Your task to perform on an android device: Go to CNN.com Image 0: 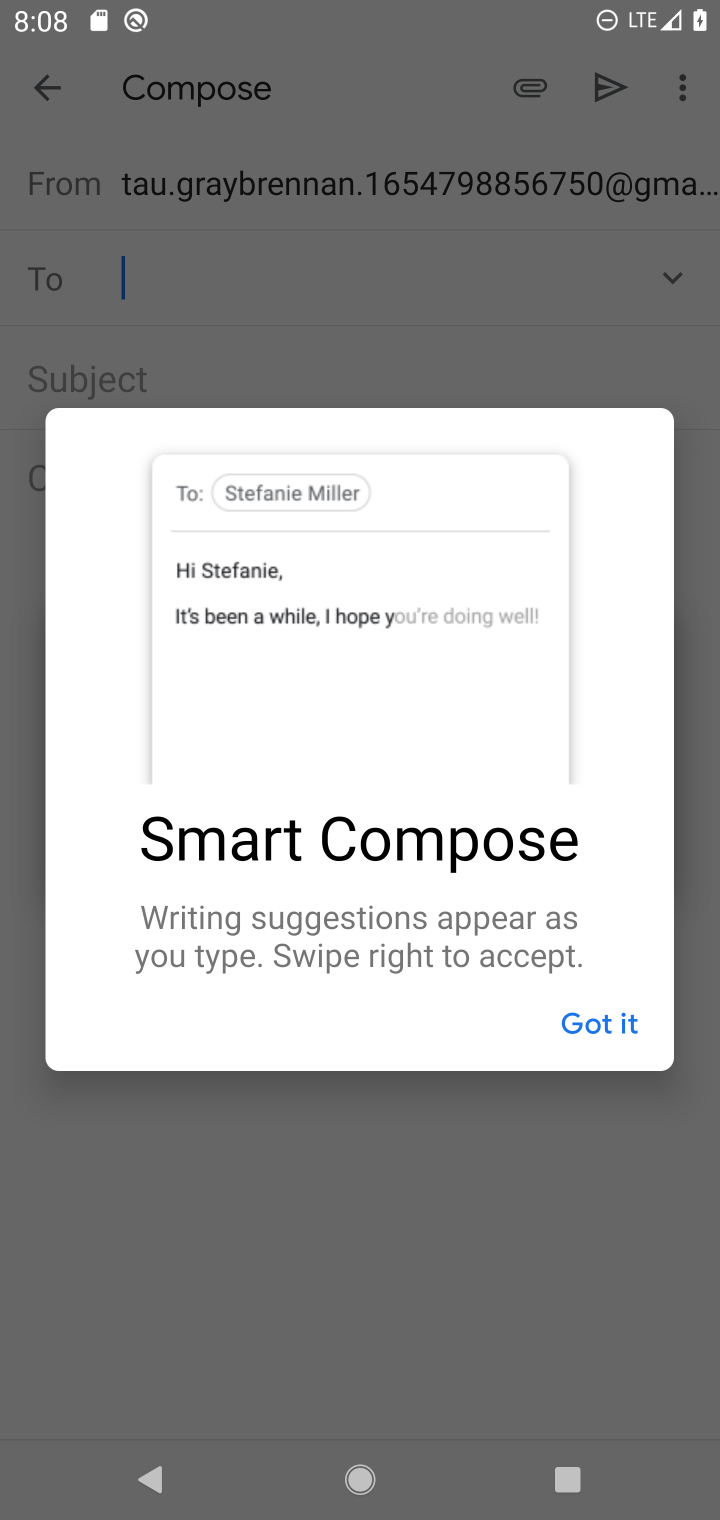
Step 0: press home button
Your task to perform on an android device: Go to CNN.com Image 1: 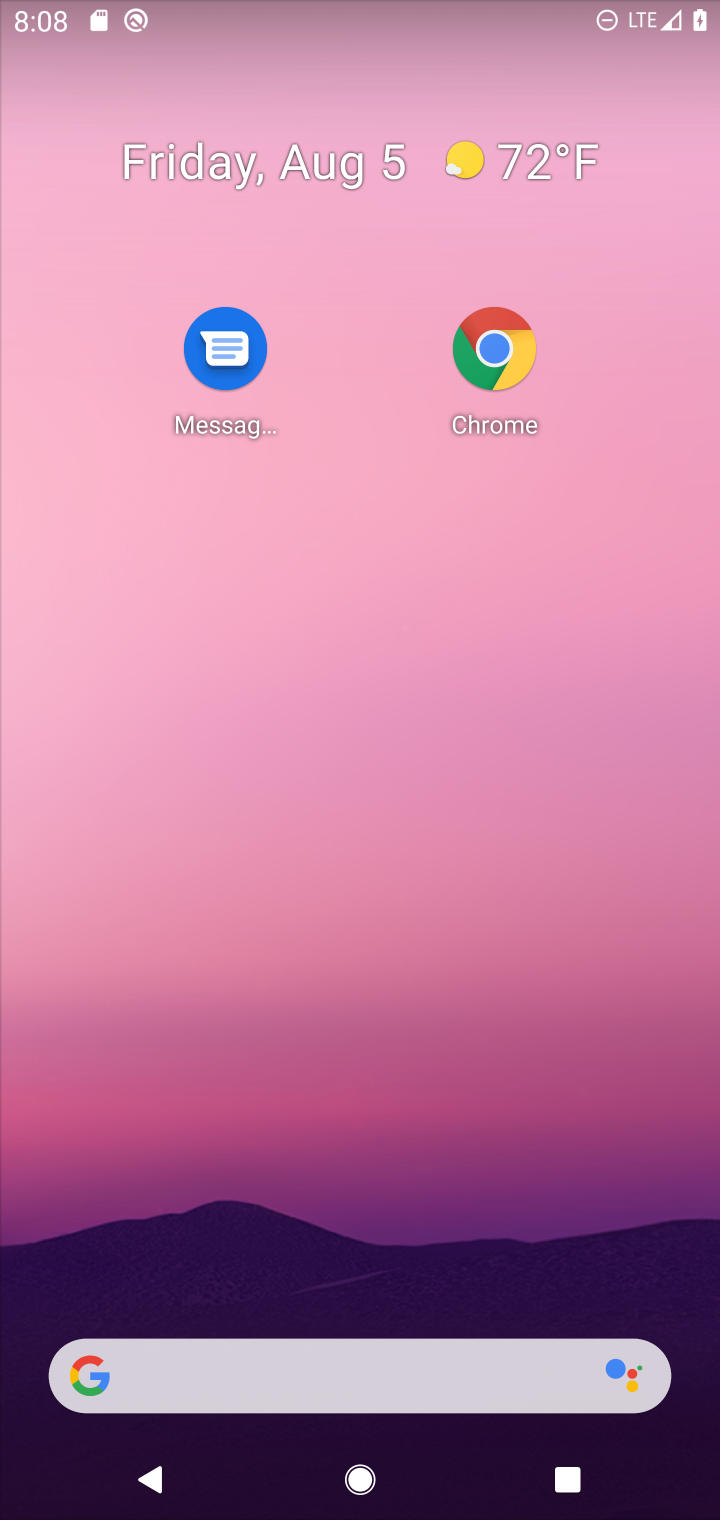
Step 1: drag from (436, 1285) to (345, 375)
Your task to perform on an android device: Go to CNN.com Image 2: 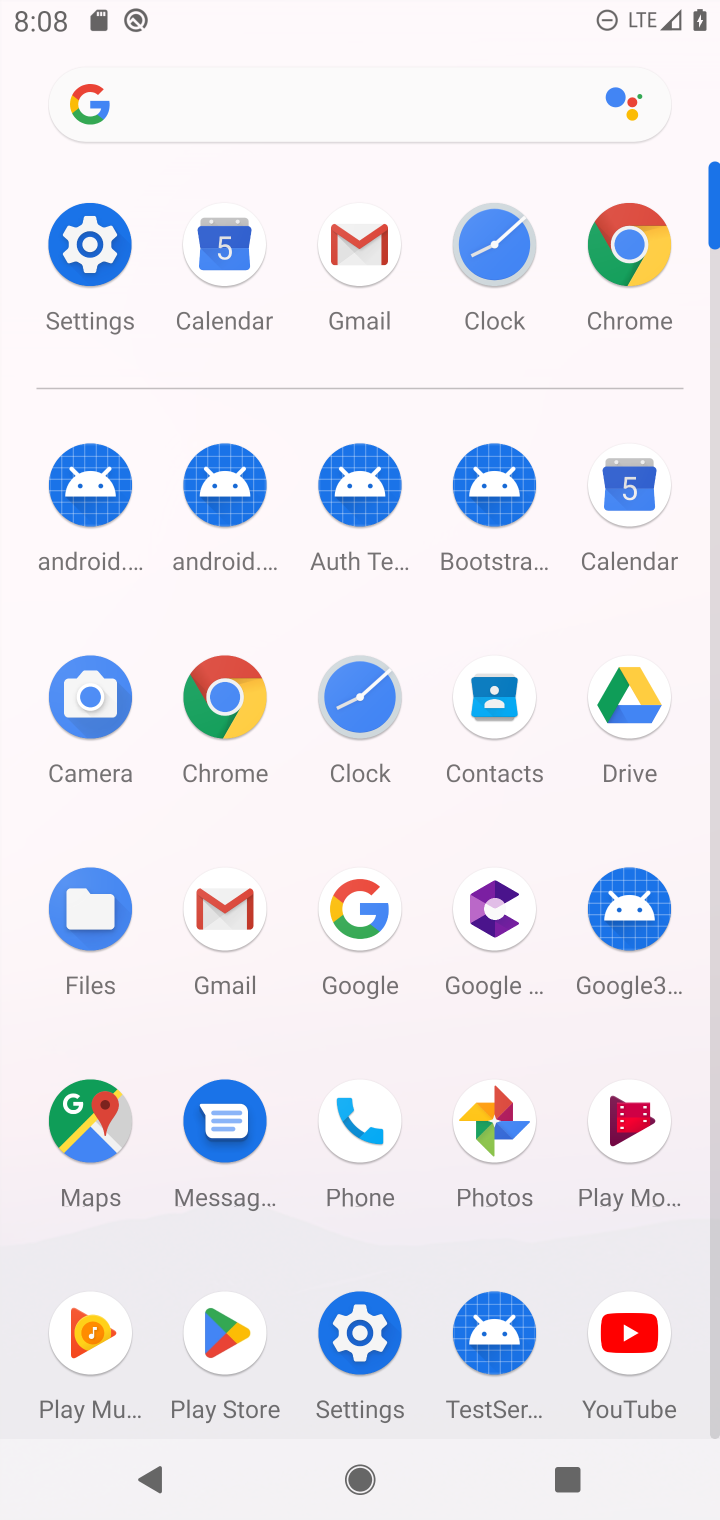
Step 2: click (612, 251)
Your task to perform on an android device: Go to CNN.com Image 3: 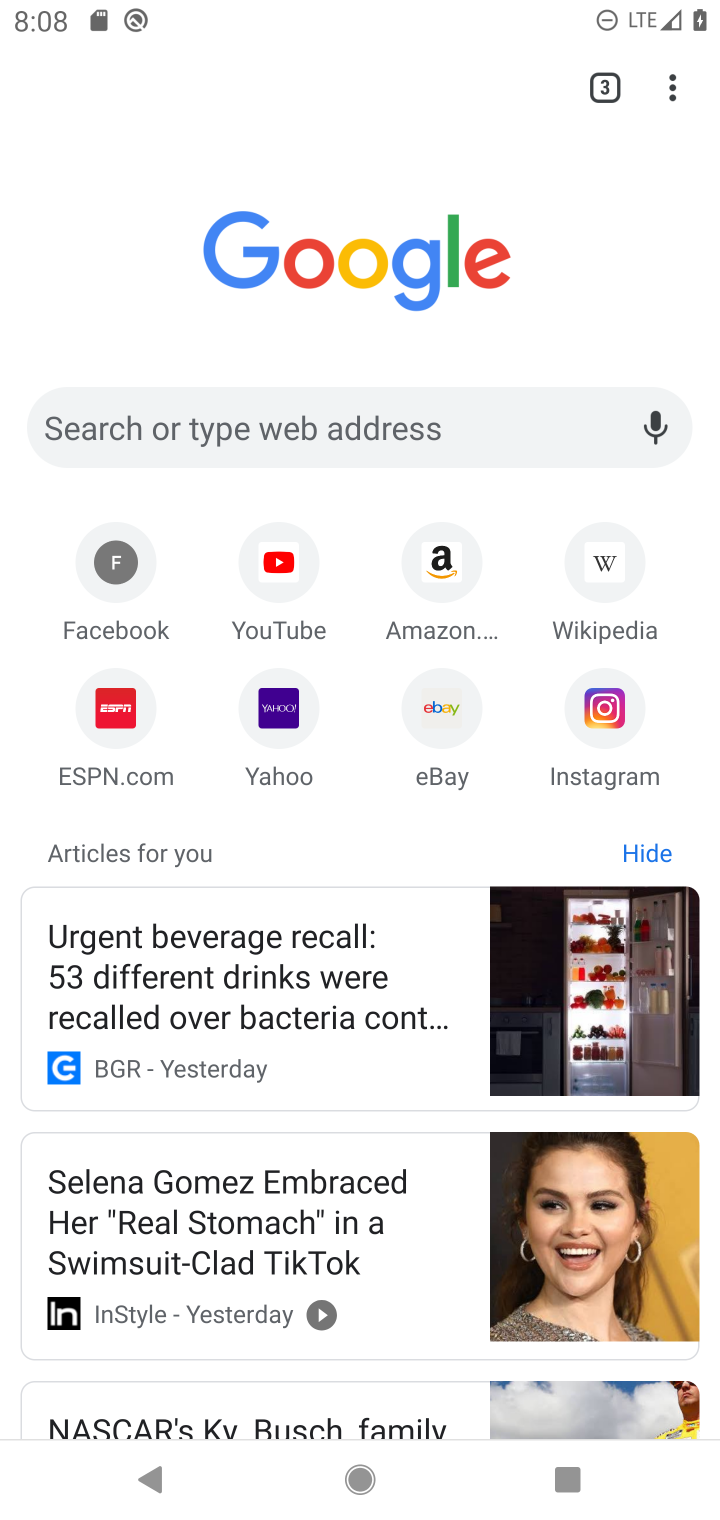
Step 3: click (288, 454)
Your task to perform on an android device: Go to CNN.com Image 4: 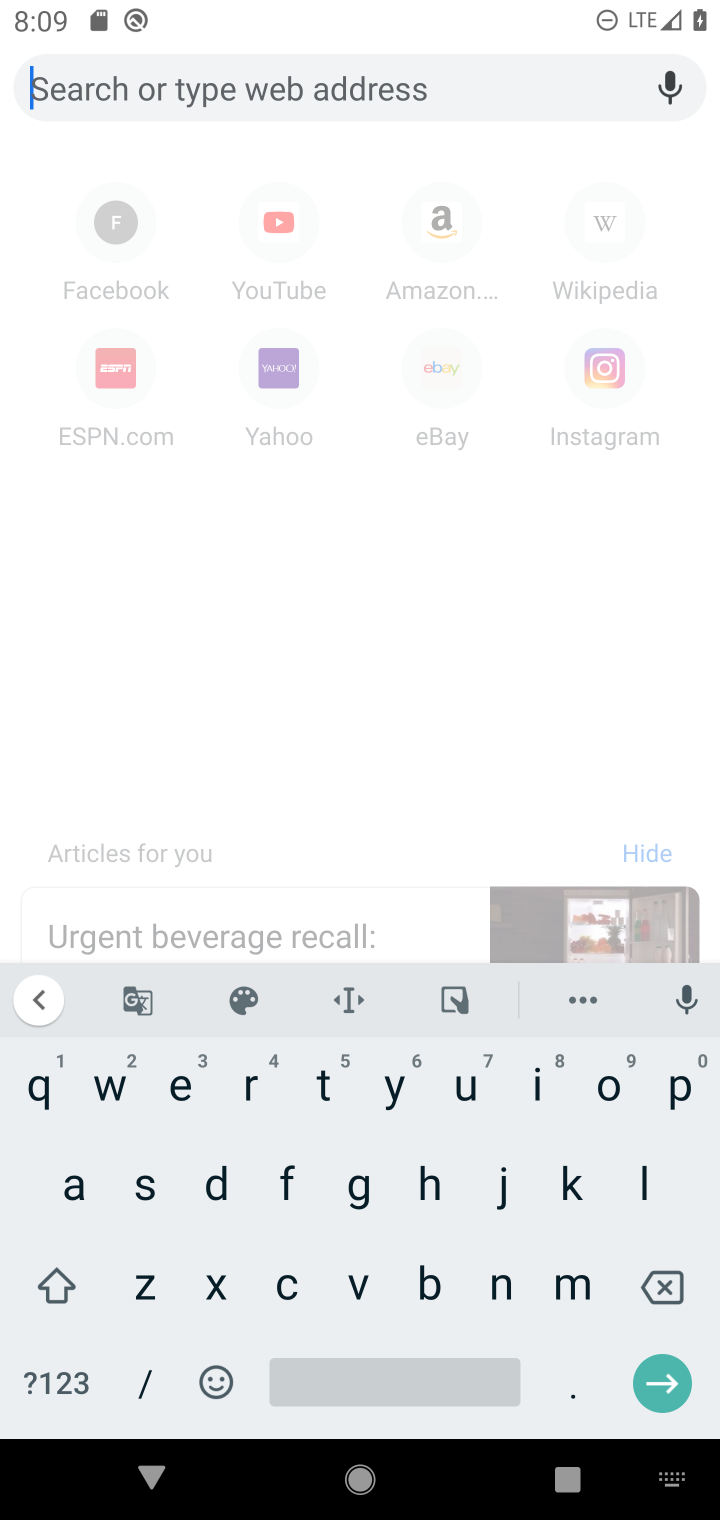
Step 4: click (282, 1267)
Your task to perform on an android device: Go to CNN.com Image 5: 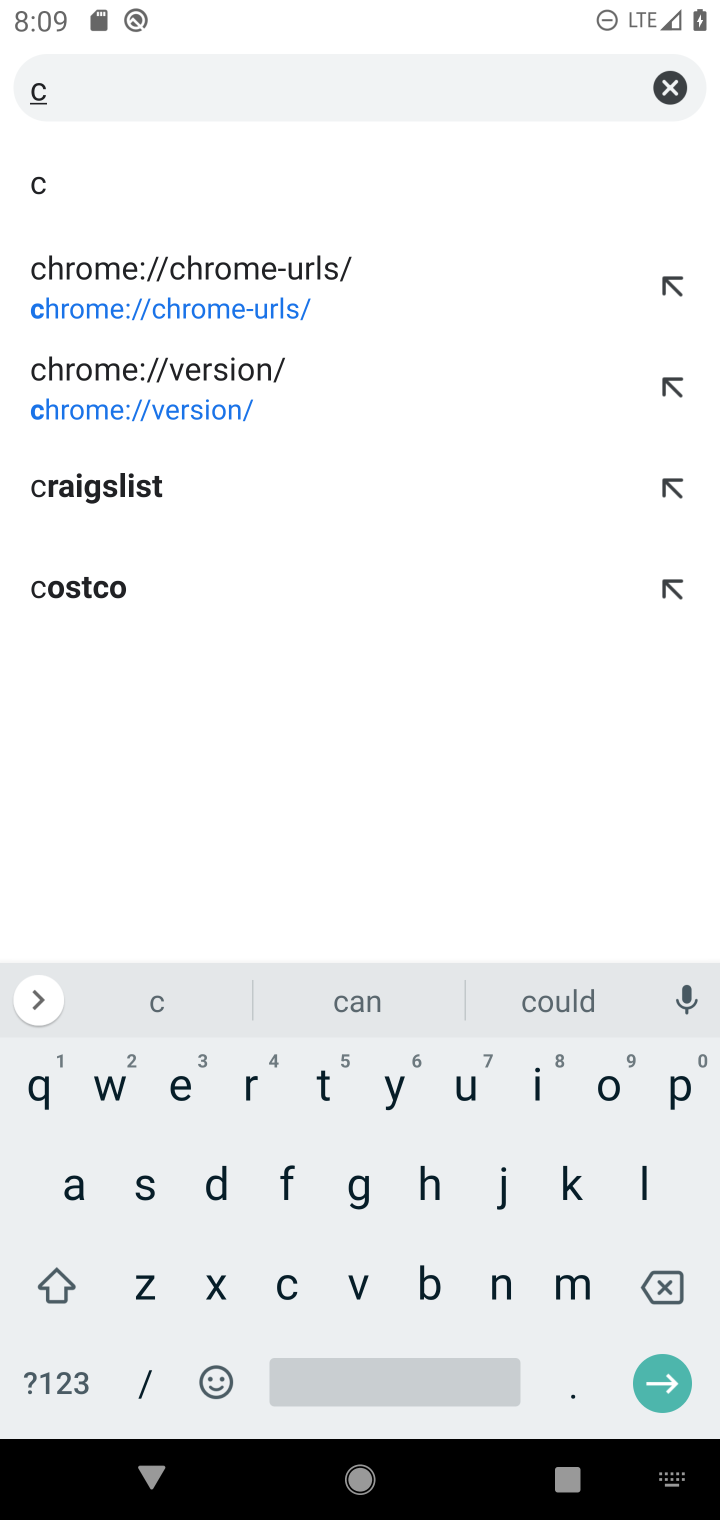
Step 5: click (485, 1289)
Your task to perform on an android device: Go to CNN.com Image 6: 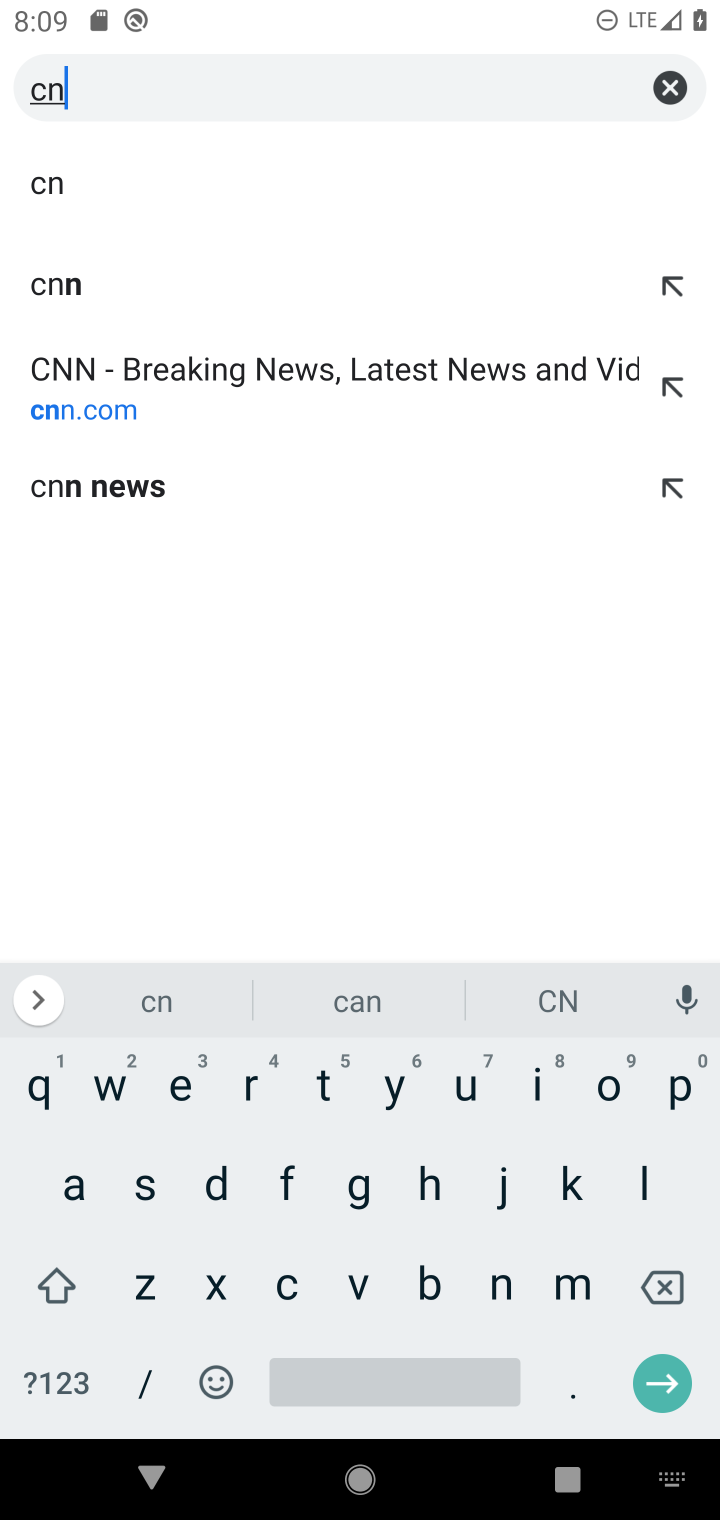
Step 6: click (485, 1289)
Your task to perform on an android device: Go to CNN.com Image 7: 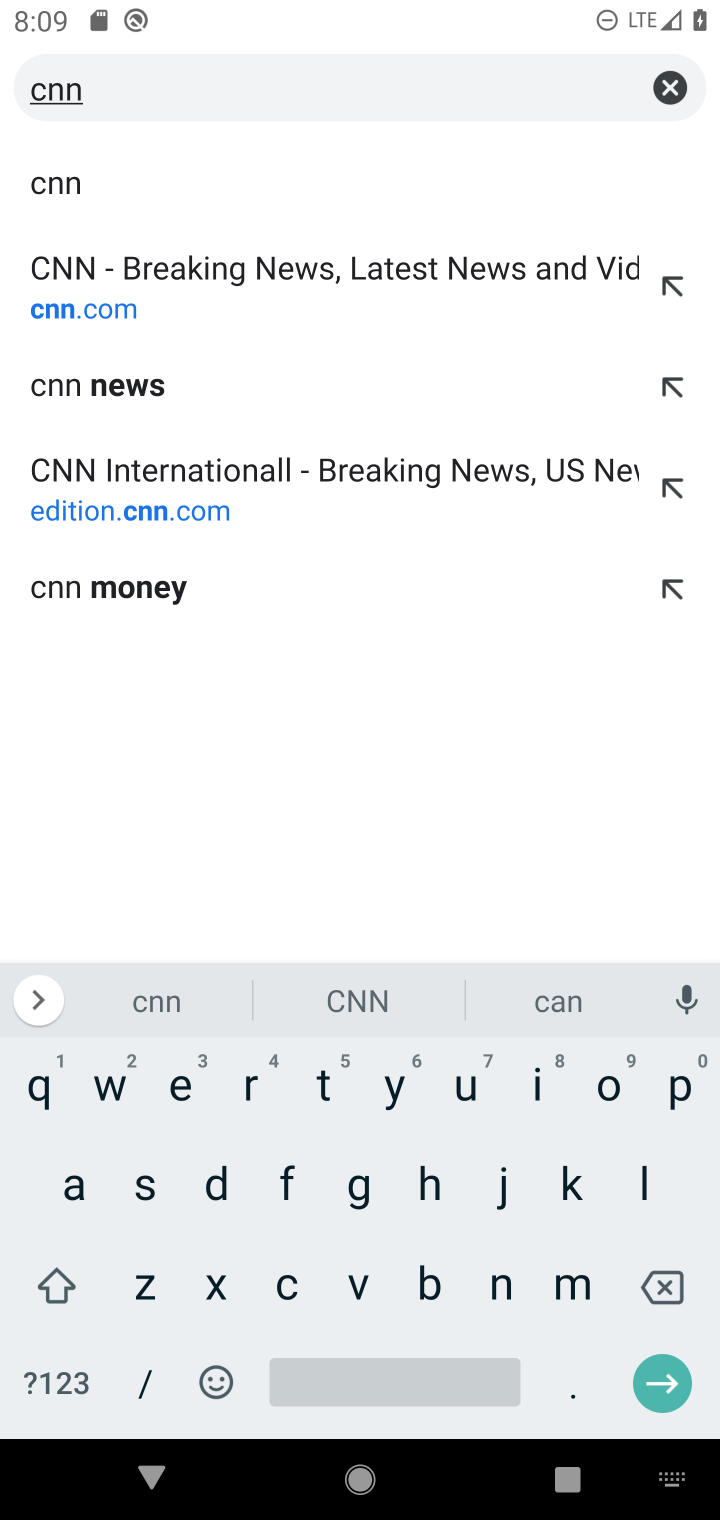
Step 7: click (125, 182)
Your task to perform on an android device: Go to CNN.com Image 8: 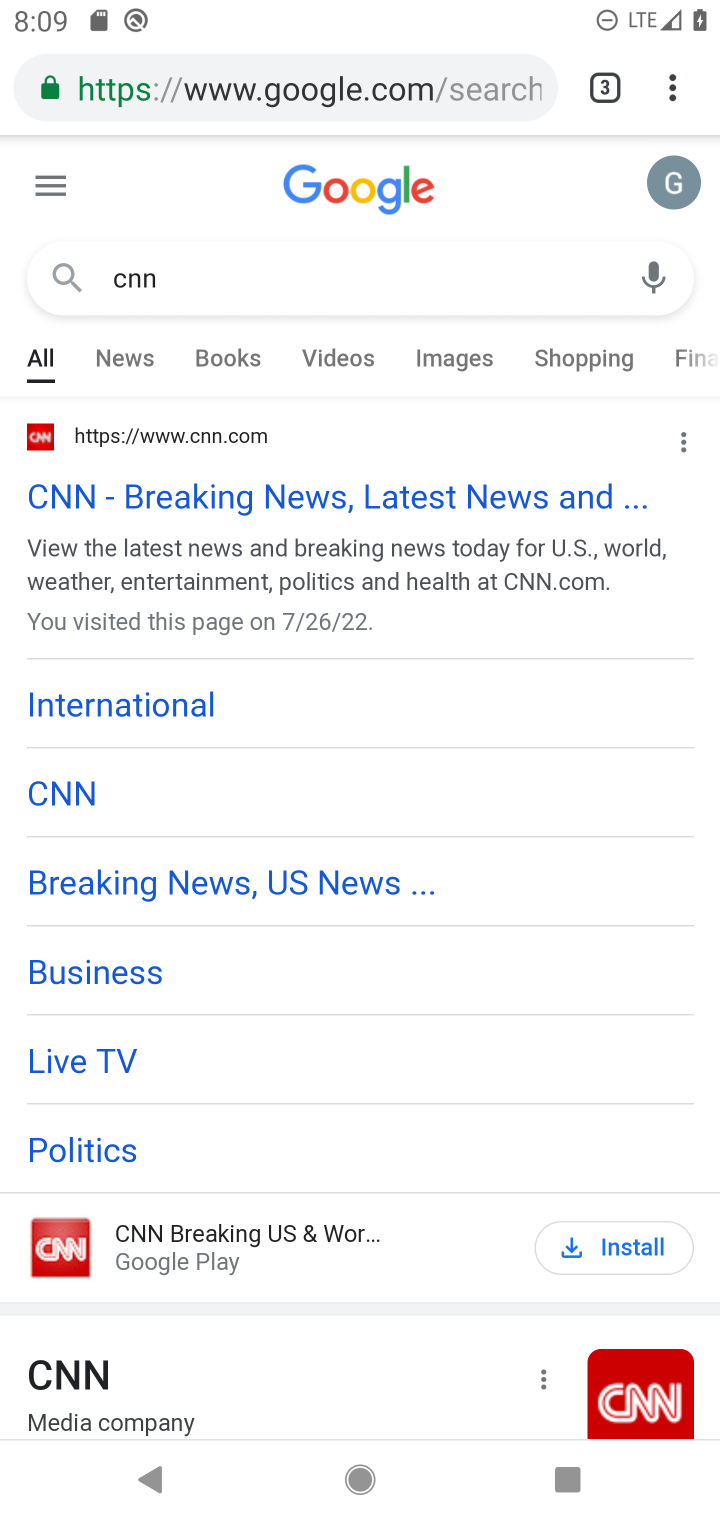
Step 8: click (127, 496)
Your task to perform on an android device: Go to CNN.com Image 9: 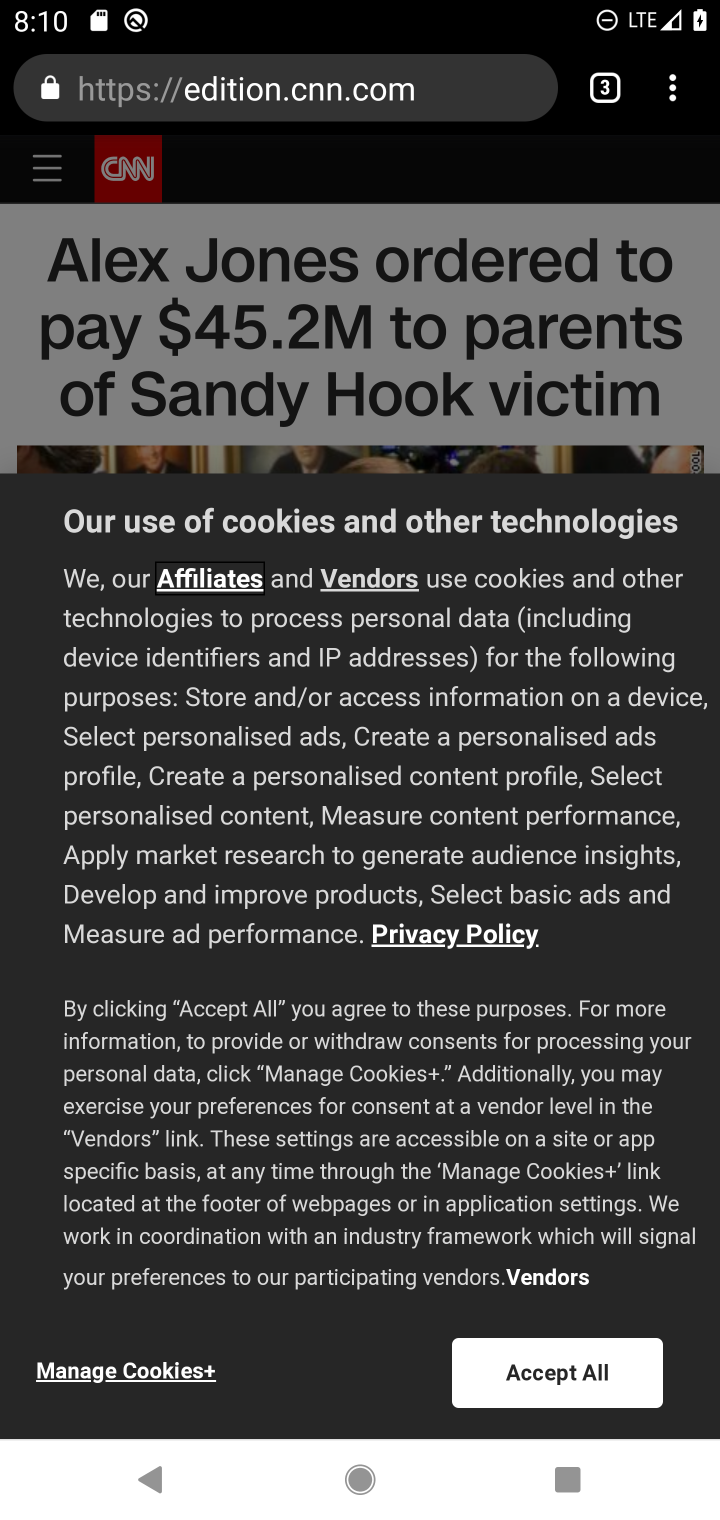
Step 9: click (619, 1363)
Your task to perform on an android device: Go to CNN.com Image 10: 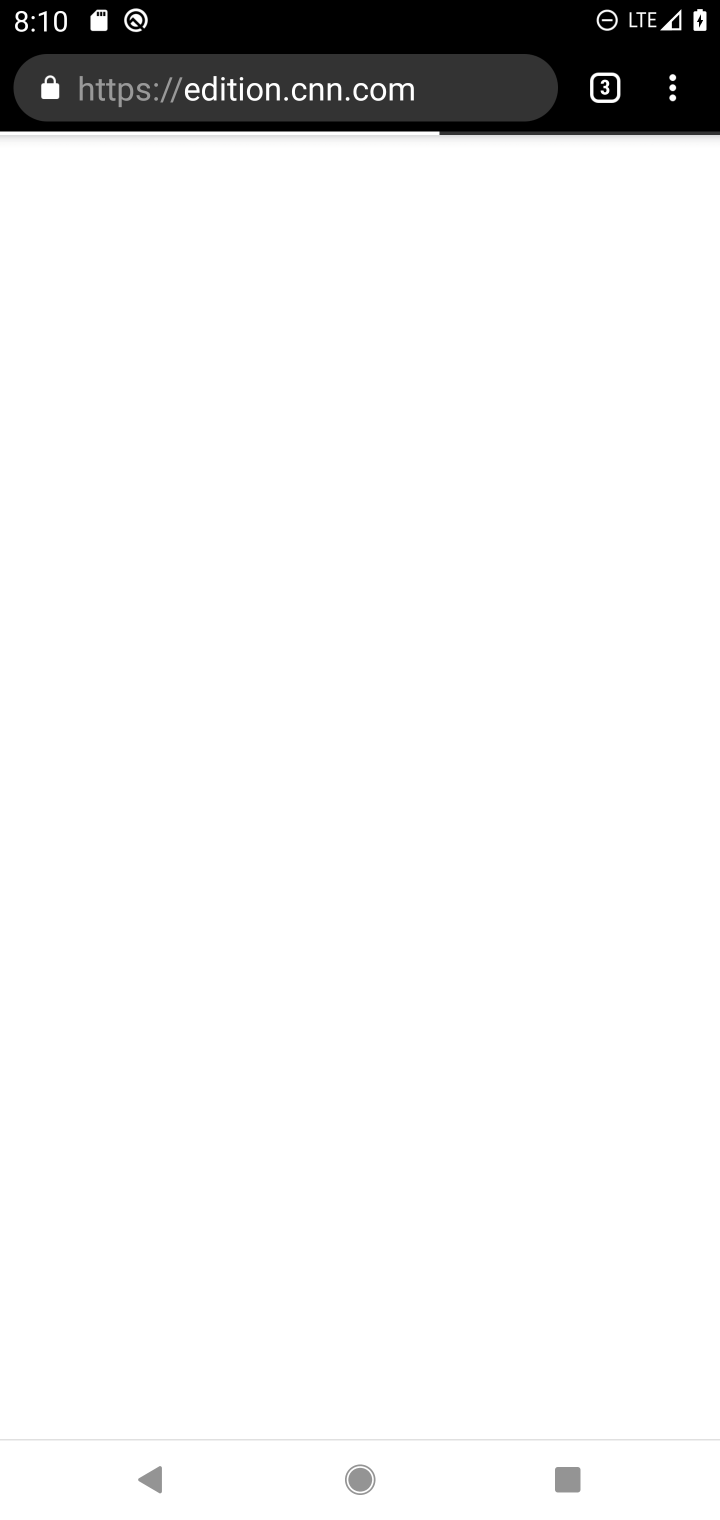
Step 10: task complete